Your task to perform on an android device: toggle translation in the chrome app Image 0: 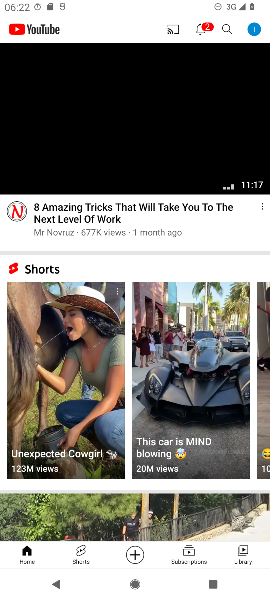
Step 0: press home button
Your task to perform on an android device: toggle translation in the chrome app Image 1: 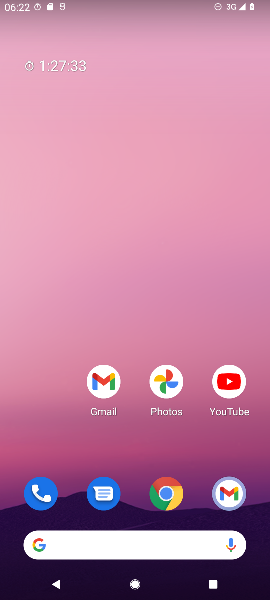
Step 1: drag from (70, 442) to (48, 144)
Your task to perform on an android device: toggle translation in the chrome app Image 2: 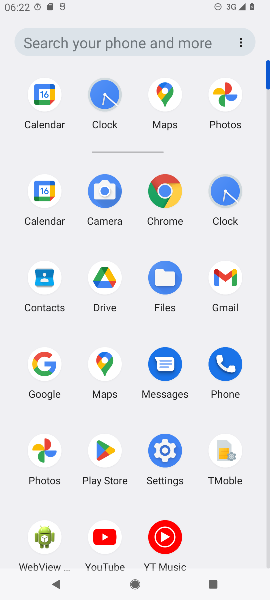
Step 2: click (174, 194)
Your task to perform on an android device: toggle translation in the chrome app Image 3: 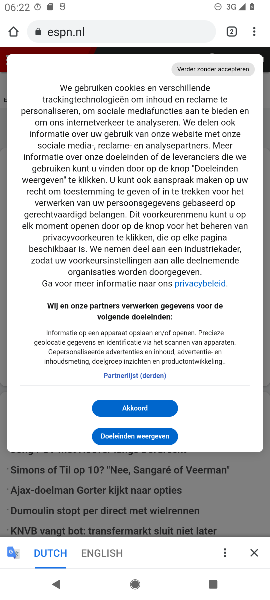
Step 3: click (253, 27)
Your task to perform on an android device: toggle translation in the chrome app Image 4: 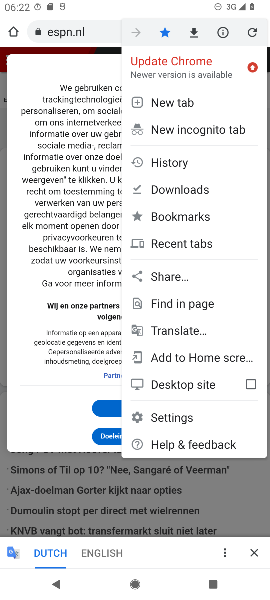
Step 4: click (184, 421)
Your task to perform on an android device: toggle translation in the chrome app Image 5: 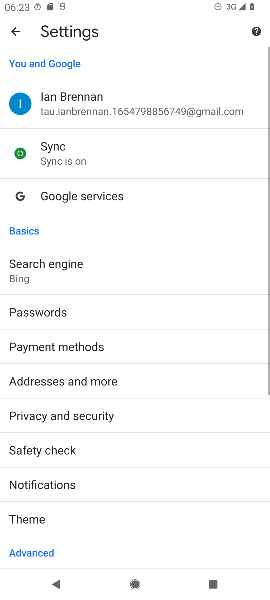
Step 5: drag from (189, 448) to (197, 352)
Your task to perform on an android device: toggle translation in the chrome app Image 6: 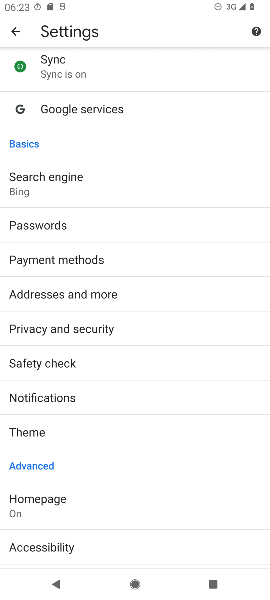
Step 6: drag from (197, 457) to (175, 225)
Your task to perform on an android device: toggle translation in the chrome app Image 7: 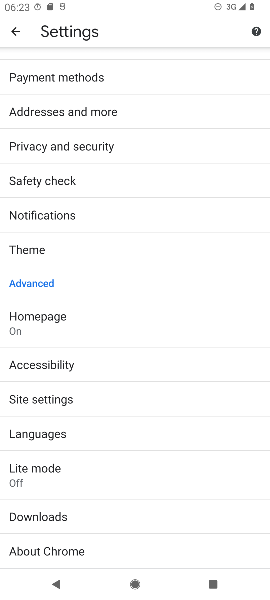
Step 7: click (146, 436)
Your task to perform on an android device: toggle translation in the chrome app Image 8: 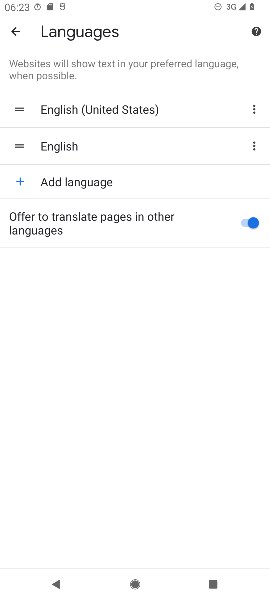
Step 8: click (252, 226)
Your task to perform on an android device: toggle translation in the chrome app Image 9: 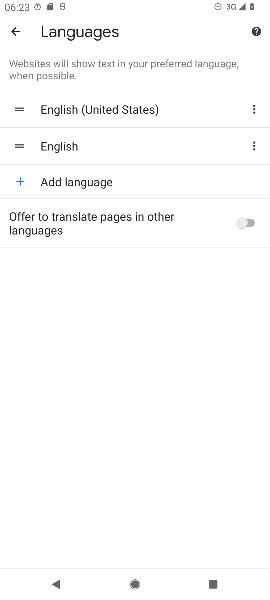
Step 9: task complete